Your task to perform on an android device: Play the last video I watched on Youtube Image 0: 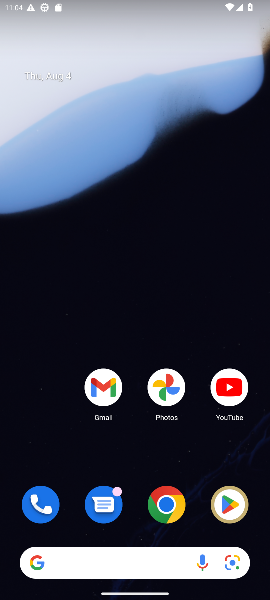
Step 0: click (241, 386)
Your task to perform on an android device: Play the last video I watched on Youtube Image 1: 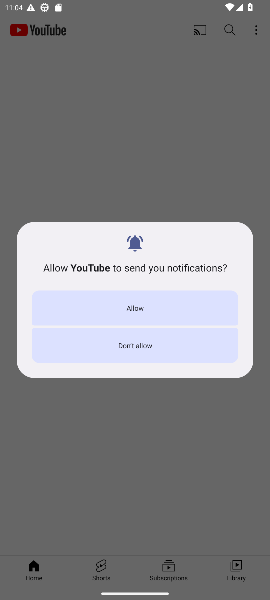
Step 1: click (172, 310)
Your task to perform on an android device: Play the last video I watched on Youtube Image 2: 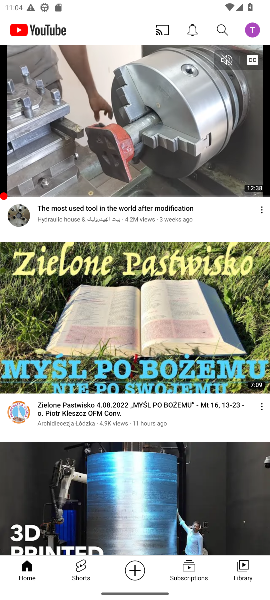
Step 2: click (246, 567)
Your task to perform on an android device: Play the last video I watched on Youtube Image 3: 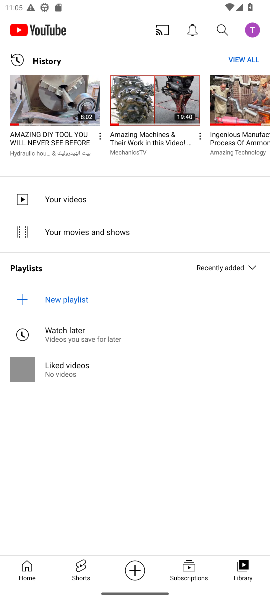
Step 3: click (68, 99)
Your task to perform on an android device: Play the last video I watched on Youtube Image 4: 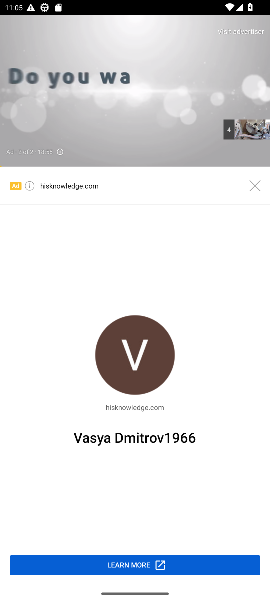
Step 4: task complete